Your task to perform on an android device: Open Yahoo.com Image 0: 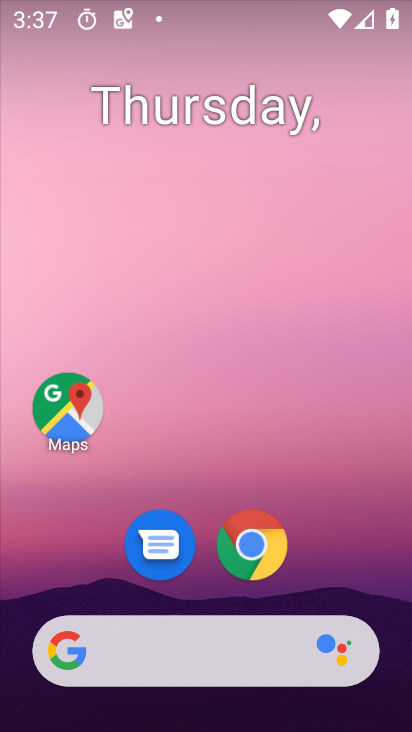
Step 0: click (256, 546)
Your task to perform on an android device: Open Yahoo.com Image 1: 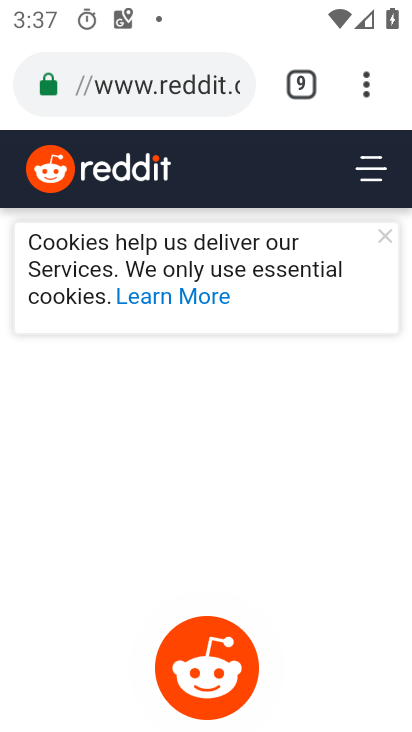
Step 1: click (366, 95)
Your task to perform on an android device: Open Yahoo.com Image 2: 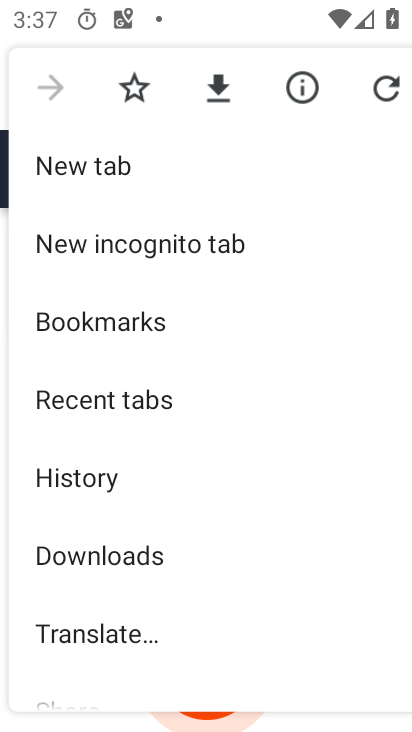
Step 2: click (99, 164)
Your task to perform on an android device: Open Yahoo.com Image 3: 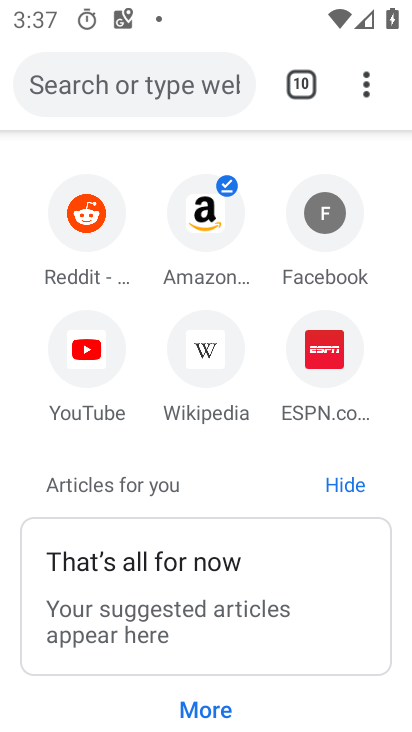
Step 3: click (363, 91)
Your task to perform on an android device: Open Yahoo.com Image 4: 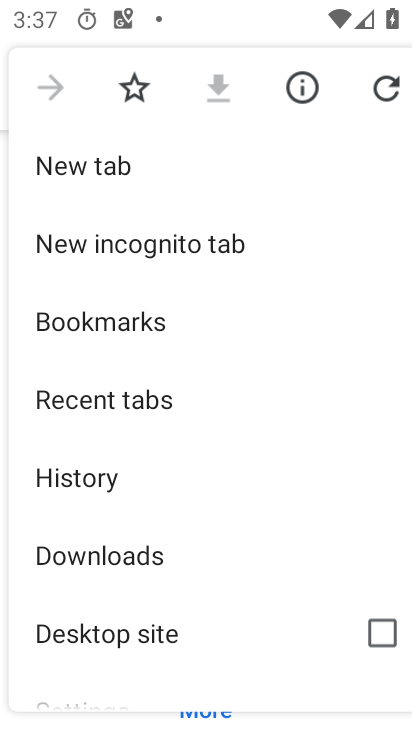
Step 4: click (92, 163)
Your task to perform on an android device: Open Yahoo.com Image 5: 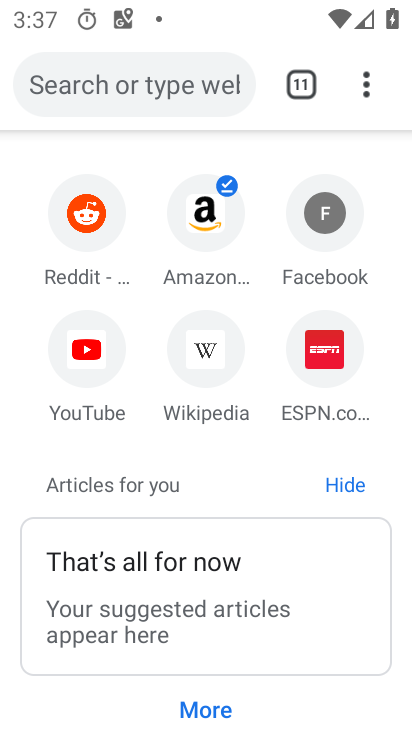
Step 5: click (165, 91)
Your task to perform on an android device: Open Yahoo.com Image 6: 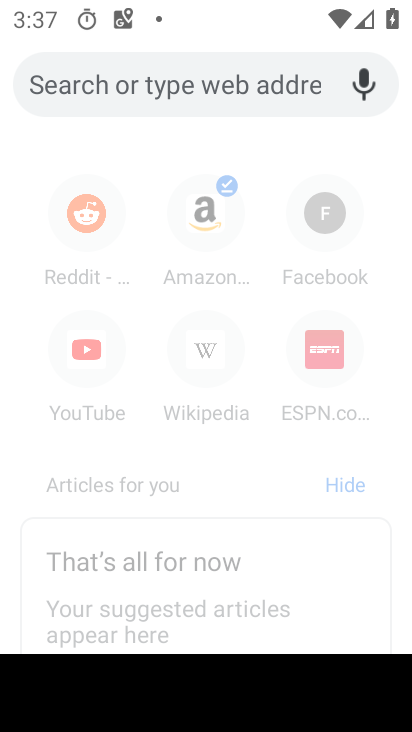
Step 6: type "yahoo.com"
Your task to perform on an android device: Open Yahoo.com Image 7: 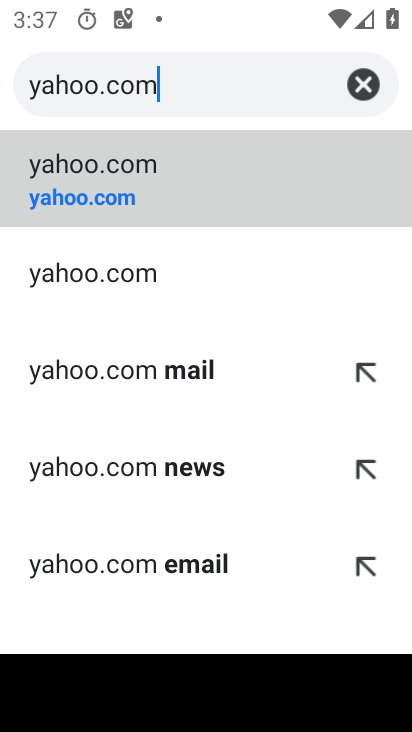
Step 7: click (76, 182)
Your task to perform on an android device: Open Yahoo.com Image 8: 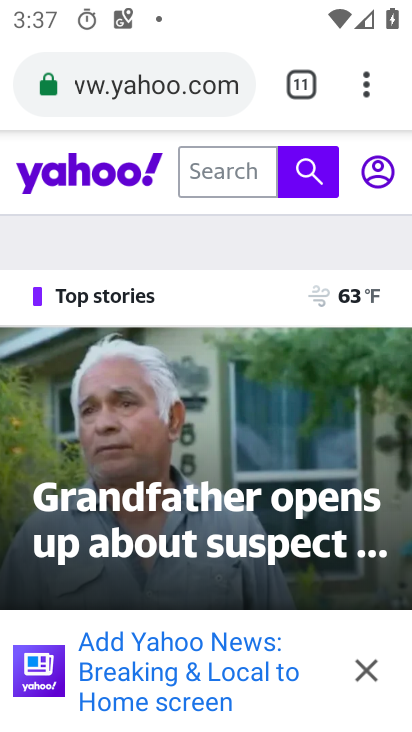
Step 8: task complete